Your task to perform on an android device: change alarm snooze length Image 0: 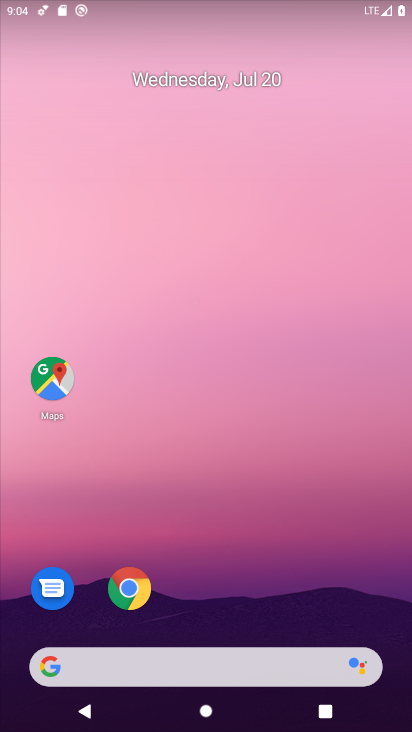
Step 0: press home button
Your task to perform on an android device: change alarm snooze length Image 1: 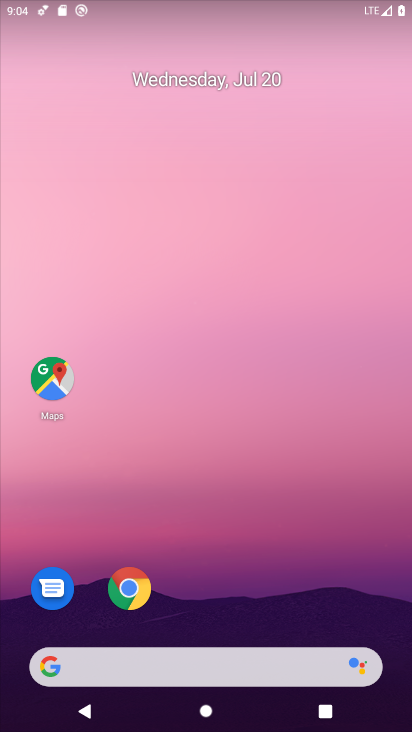
Step 1: drag from (219, 617) to (240, 105)
Your task to perform on an android device: change alarm snooze length Image 2: 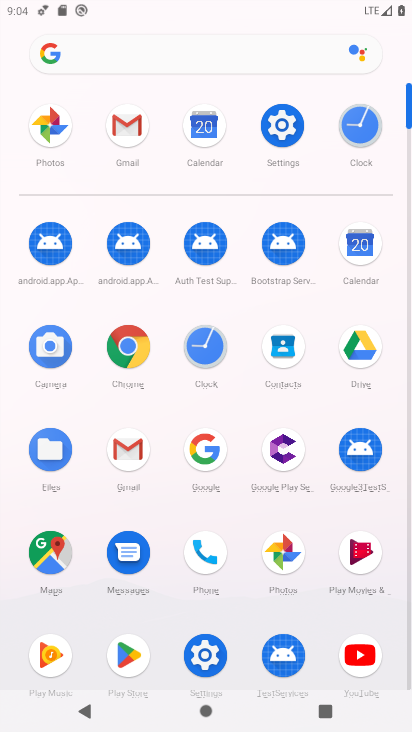
Step 2: click (203, 339)
Your task to perform on an android device: change alarm snooze length Image 3: 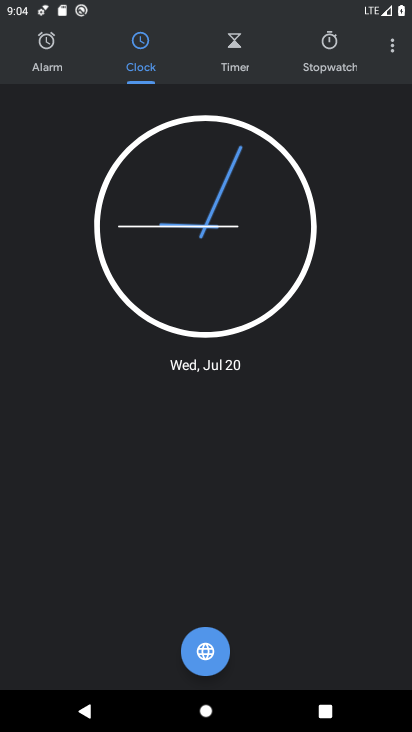
Step 3: click (391, 43)
Your task to perform on an android device: change alarm snooze length Image 4: 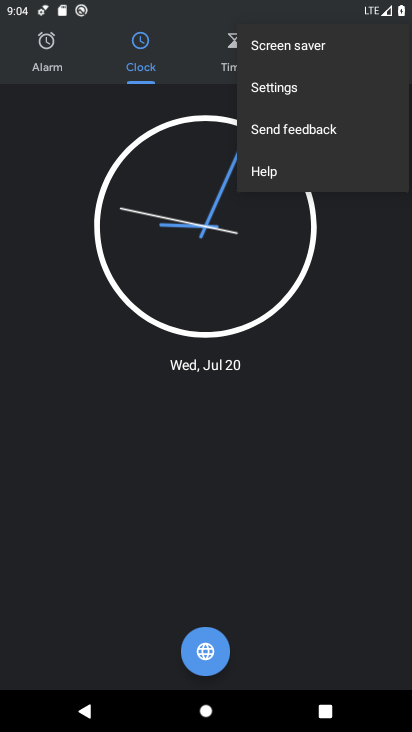
Step 4: click (299, 83)
Your task to perform on an android device: change alarm snooze length Image 5: 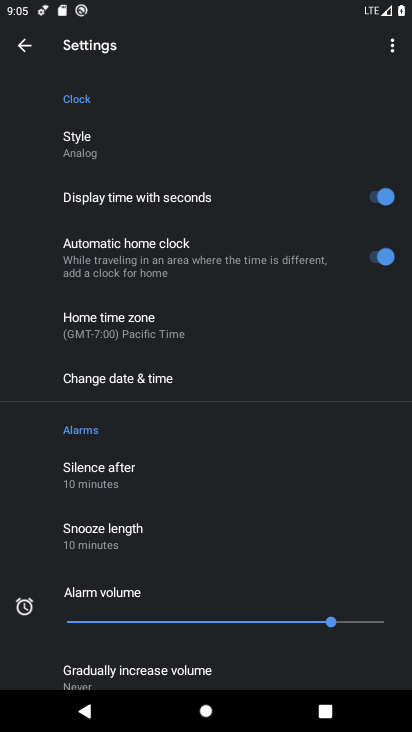
Step 5: click (155, 535)
Your task to perform on an android device: change alarm snooze length Image 6: 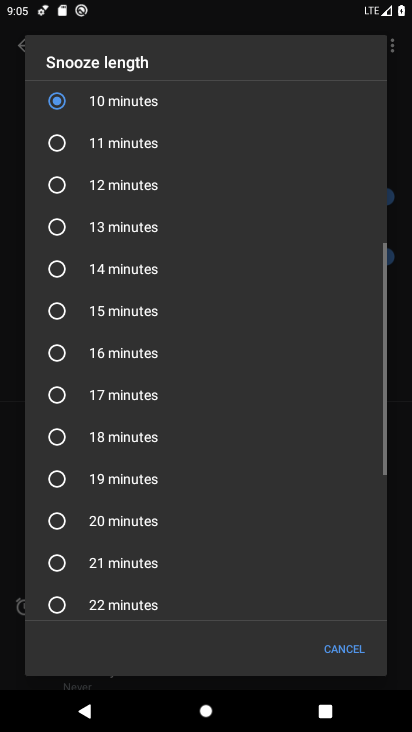
Step 6: drag from (78, 214) to (71, 583)
Your task to perform on an android device: change alarm snooze length Image 7: 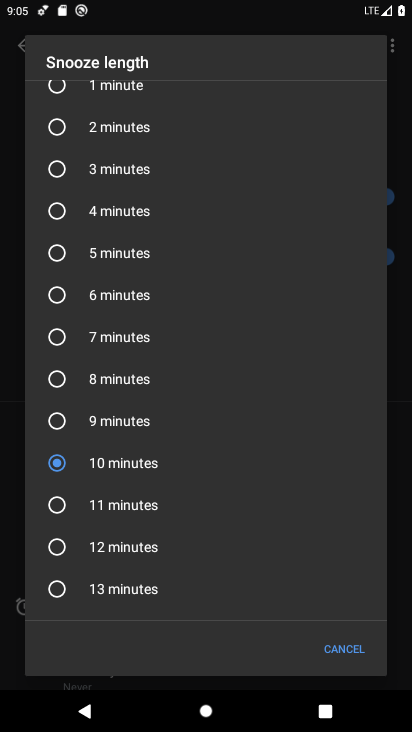
Step 7: click (54, 167)
Your task to perform on an android device: change alarm snooze length Image 8: 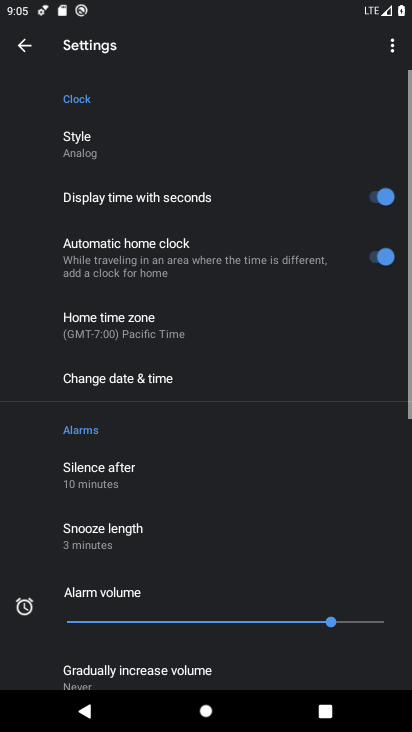
Step 8: task complete